Your task to perform on an android device: Go to settings Image 0: 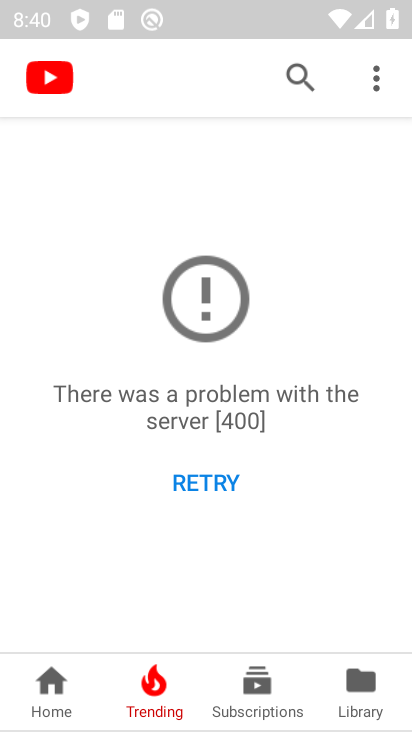
Step 0: press home button
Your task to perform on an android device: Go to settings Image 1: 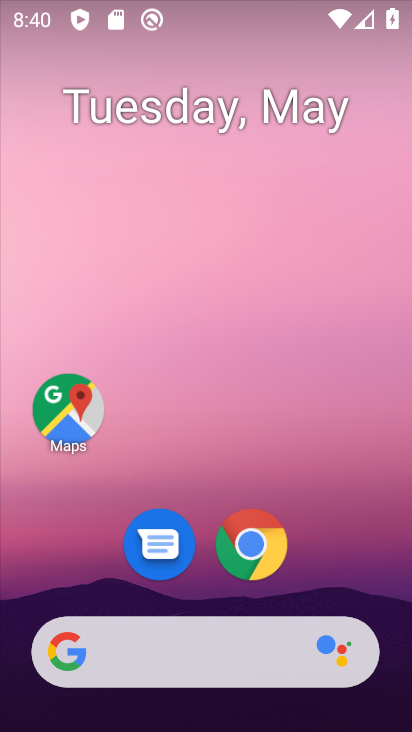
Step 1: drag from (321, 515) to (328, 196)
Your task to perform on an android device: Go to settings Image 2: 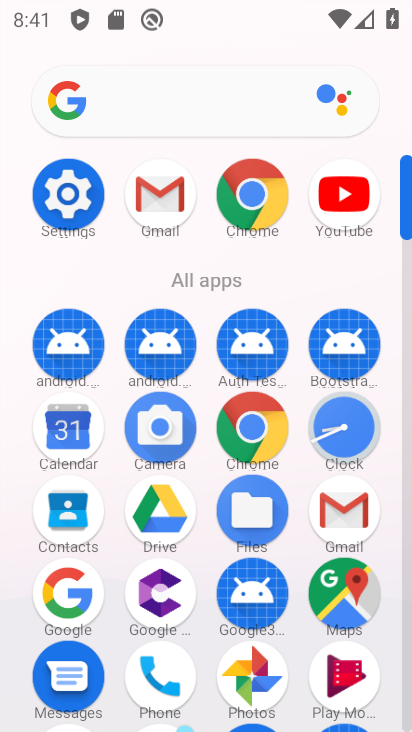
Step 2: click (86, 194)
Your task to perform on an android device: Go to settings Image 3: 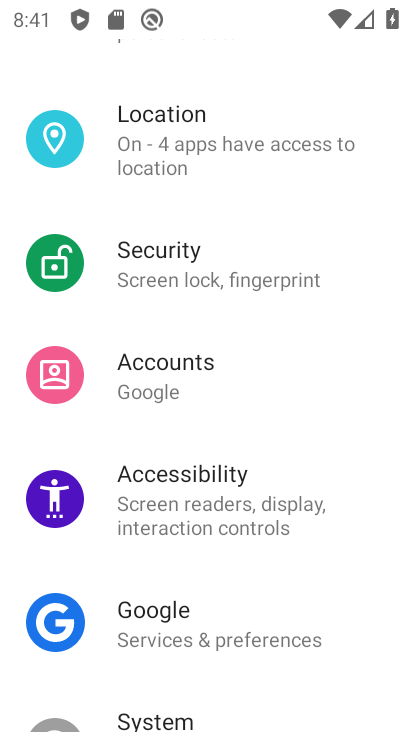
Step 3: task complete